Your task to perform on an android device: Go to eBay Image 0: 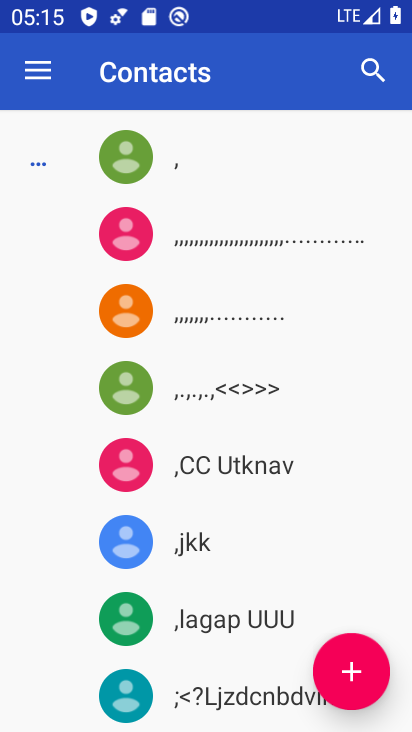
Step 0: press home button
Your task to perform on an android device: Go to eBay Image 1: 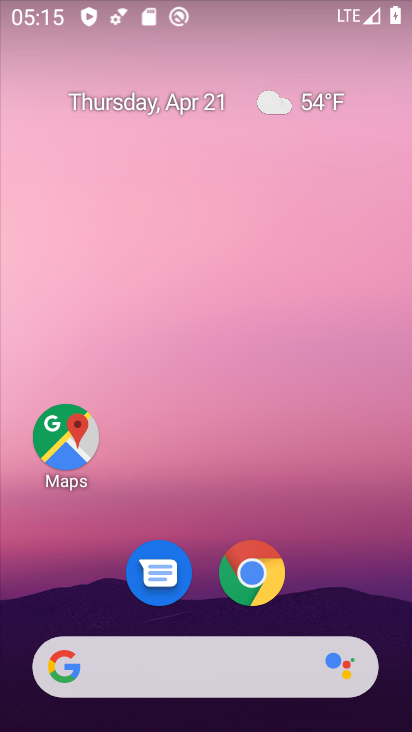
Step 1: click (259, 576)
Your task to perform on an android device: Go to eBay Image 2: 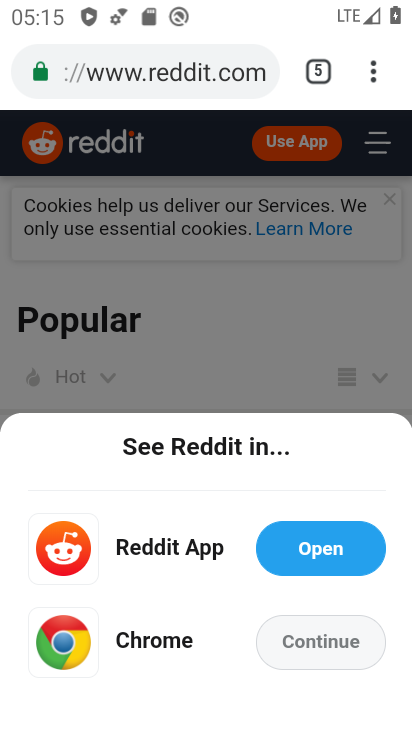
Step 2: click (151, 72)
Your task to perform on an android device: Go to eBay Image 3: 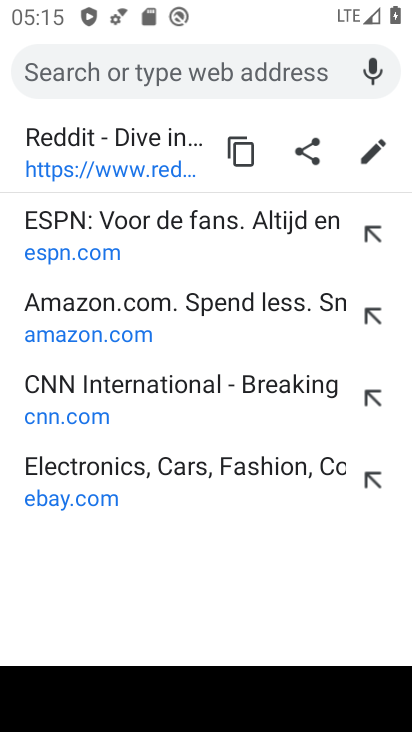
Step 3: type "ebay"
Your task to perform on an android device: Go to eBay Image 4: 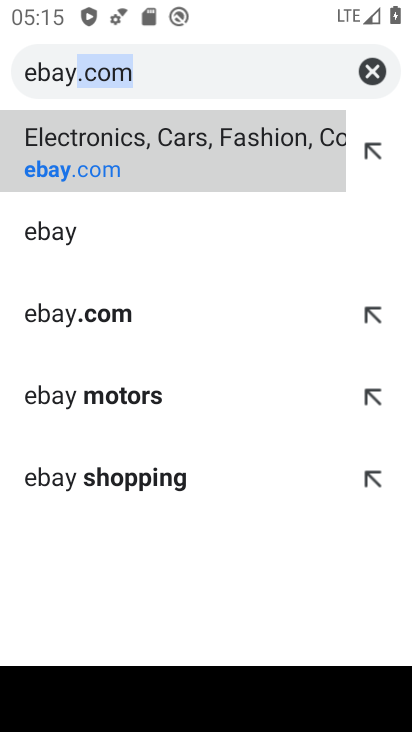
Step 4: click (85, 146)
Your task to perform on an android device: Go to eBay Image 5: 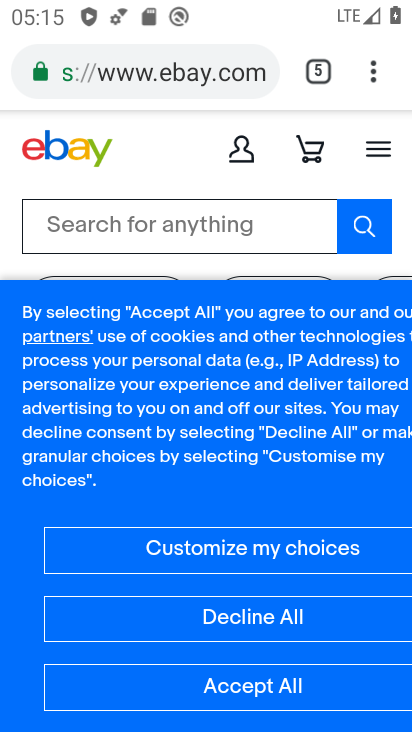
Step 5: task complete